Your task to perform on an android device: toggle notification dots Image 0: 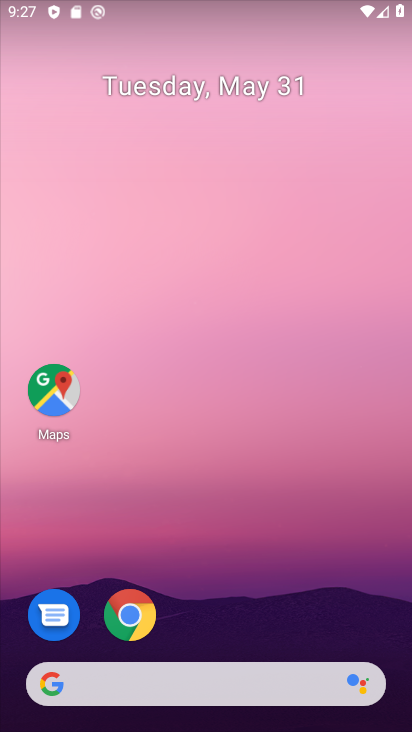
Step 0: drag from (243, 584) to (254, 63)
Your task to perform on an android device: toggle notification dots Image 1: 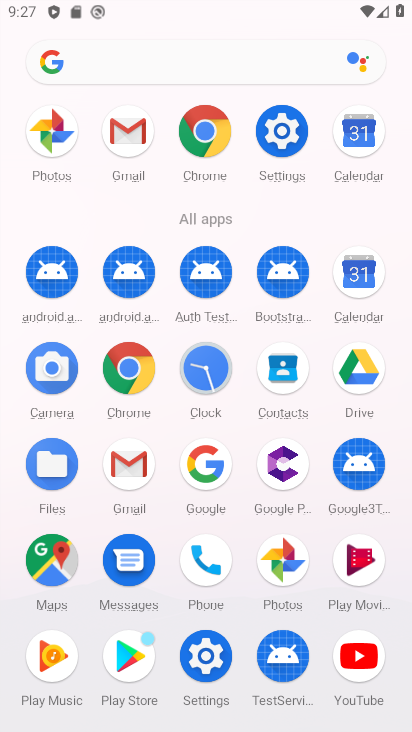
Step 1: click (213, 660)
Your task to perform on an android device: toggle notification dots Image 2: 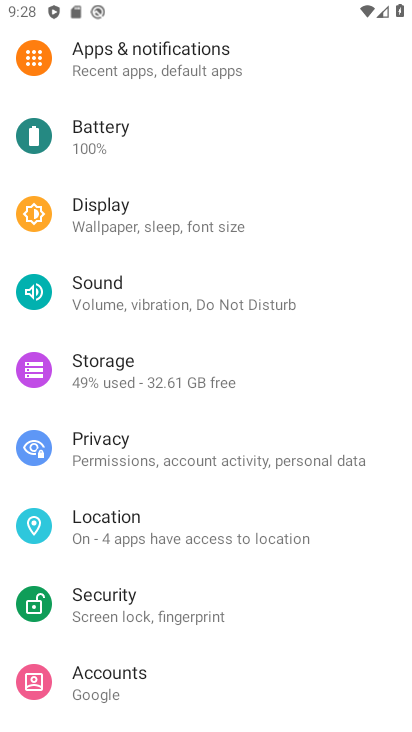
Step 2: click (163, 59)
Your task to perform on an android device: toggle notification dots Image 3: 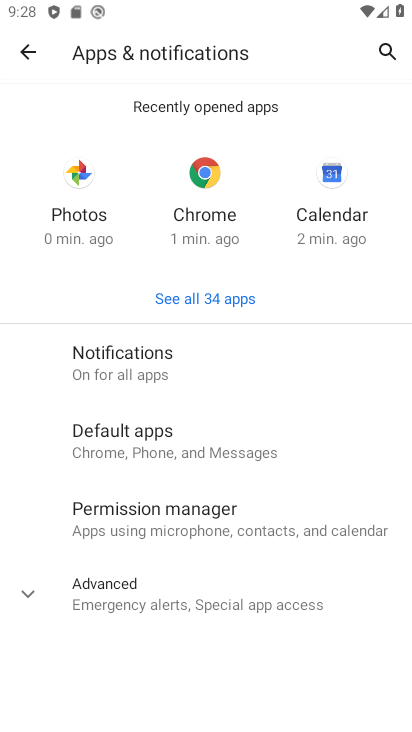
Step 3: click (109, 371)
Your task to perform on an android device: toggle notification dots Image 4: 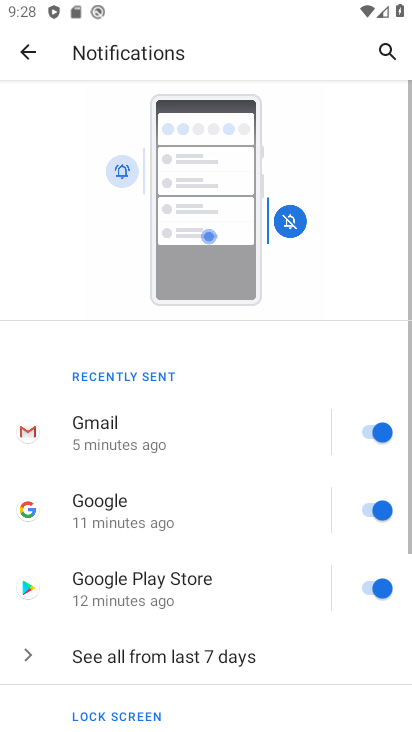
Step 4: drag from (150, 604) to (190, 1)
Your task to perform on an android device: toggle notification dots Image 5: 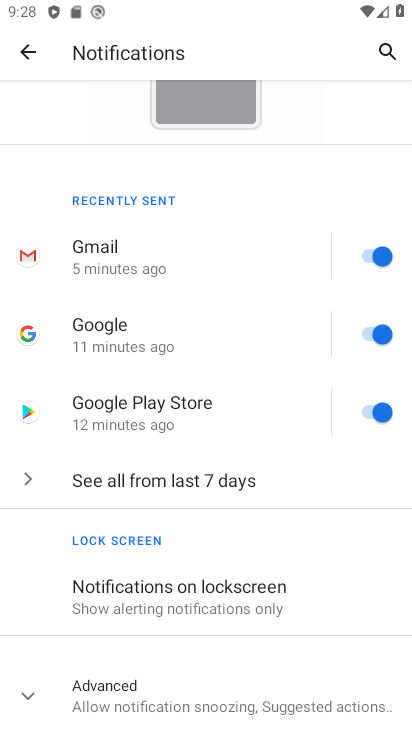
Step 5: click (119, 687)
Your task to perform on an android device: toggle notification dots Image 6: 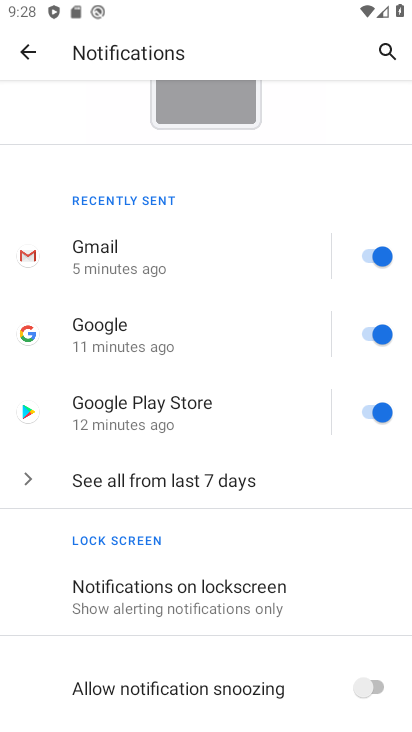
Step 6: drag from (152, 681) to (239, 304)
Your task to perform on an android device: toggle notification dots Image 7: 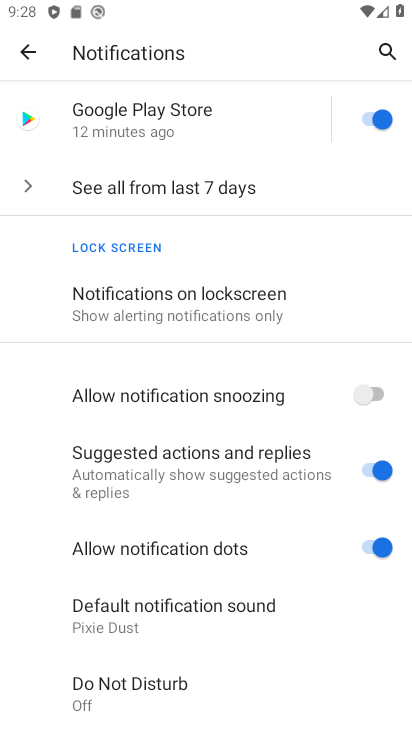
Step 7: click (369, 542)
Your task to perform on an android device: toggle notification dots Image 8: 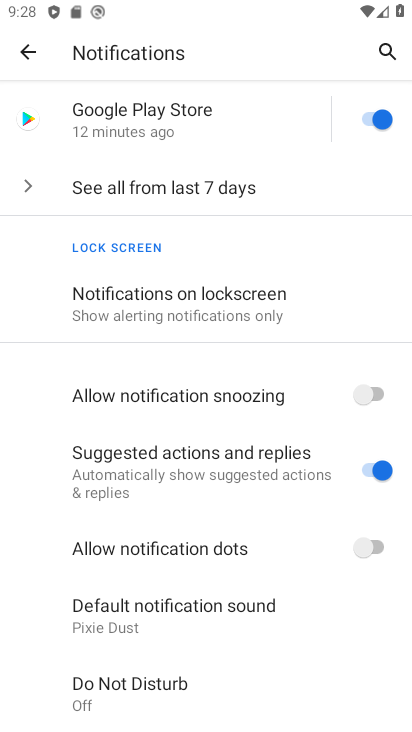
Step 8: task complete